Your task to perform on an android device: create a new album in the google photos Image 0: 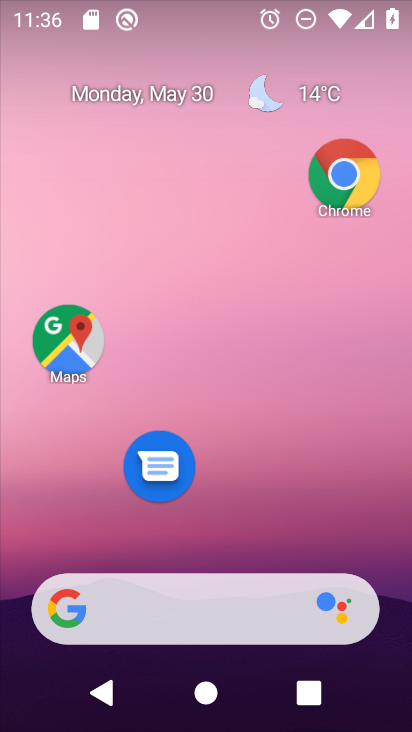
Step 0: drag from (313, 432) to (220, 5)
Your task to perform on an android device: create a new album in the google photos Image 1: 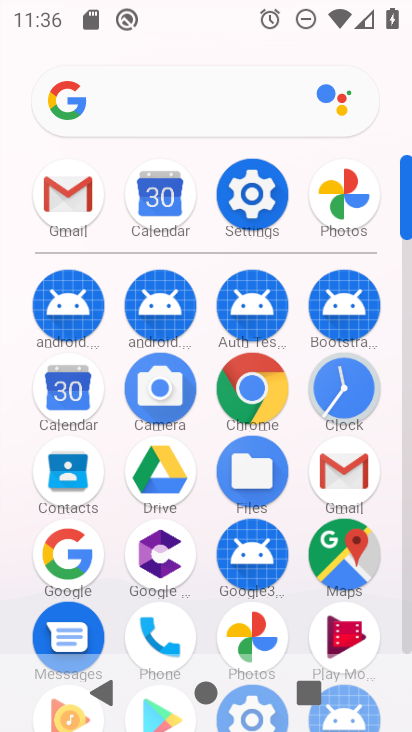
Step 1: click (266, 628)
Your task to perform on an android device: create a new album in the google photos Image 2: 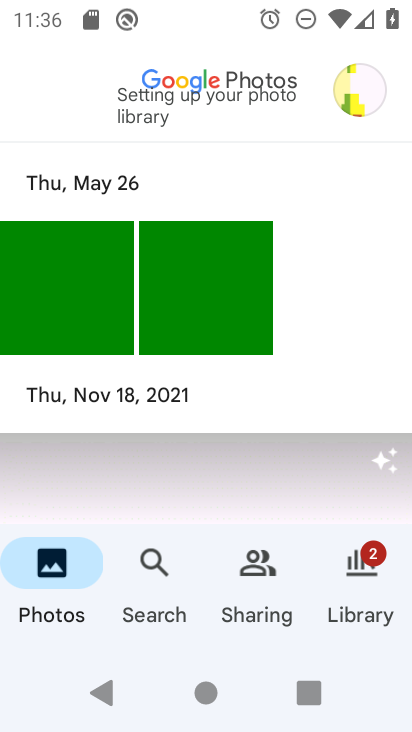
Step 2: drag from (211, 450) to (198, 279)
Your task to perform on an android device: create a new album in the google photos Image 3: 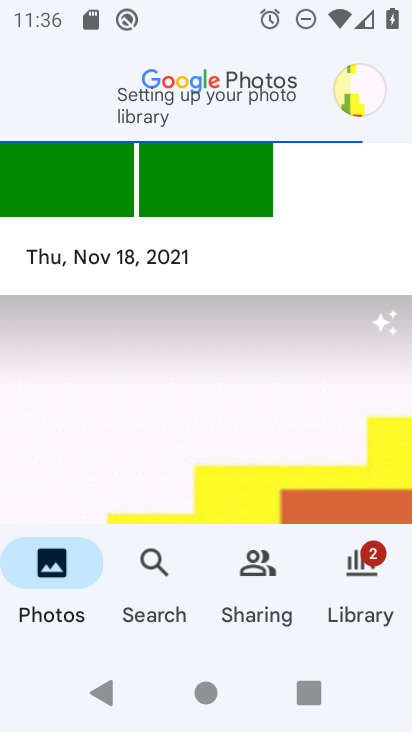
Step 3: click (189, 368)
Your task to perform on an android device: create a new album in the google photos Image 4: 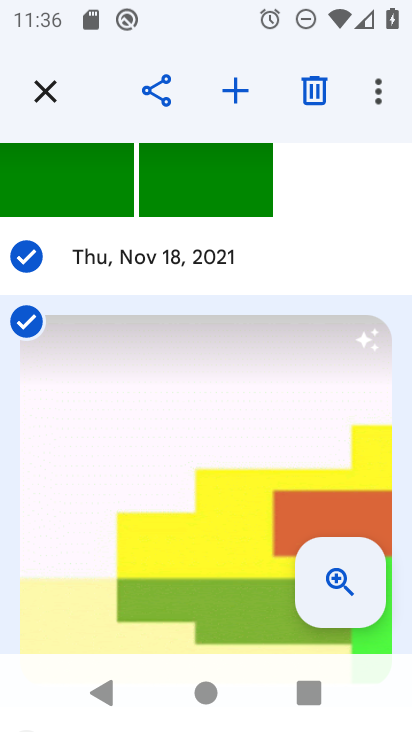
Step 4: drag from (129, 229) to (211, 592)
Your task to perform on an android device: create a new album in the google photos Image 5: 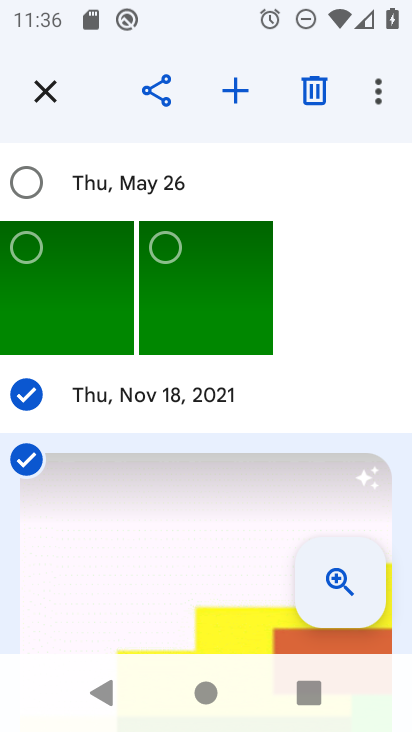
Step 5: click (174, 231)
Your task to perform on an android device: create a new album in the google photos Image 6: 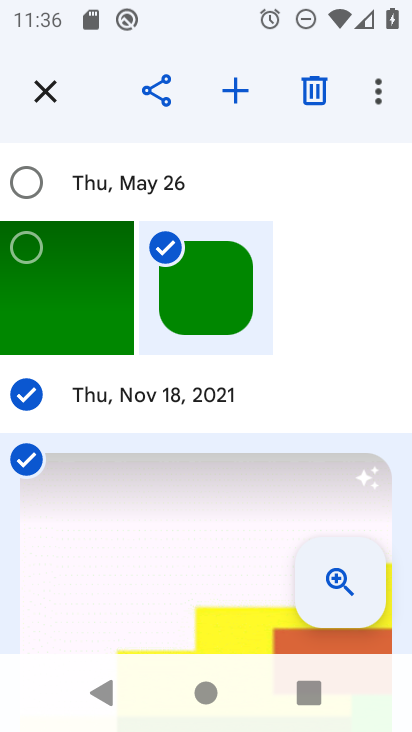
Step 6: click (231, 90)
Your task to perform on an android device: create a new album in the google photos Image 7: 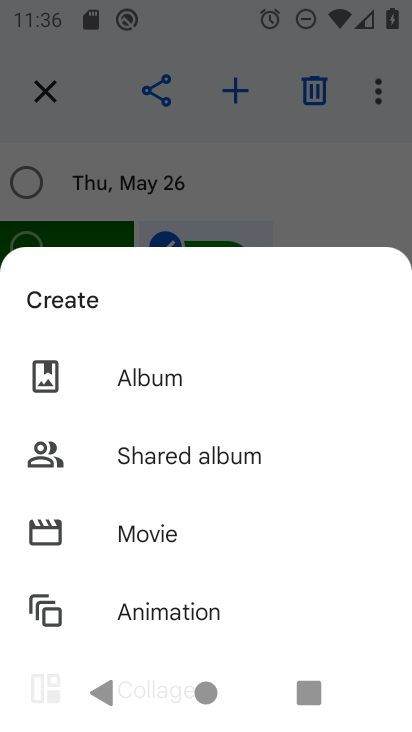
Step 7: click (187, 367)
Your task to perform on an android device: create a new album in the google photos Image 8: 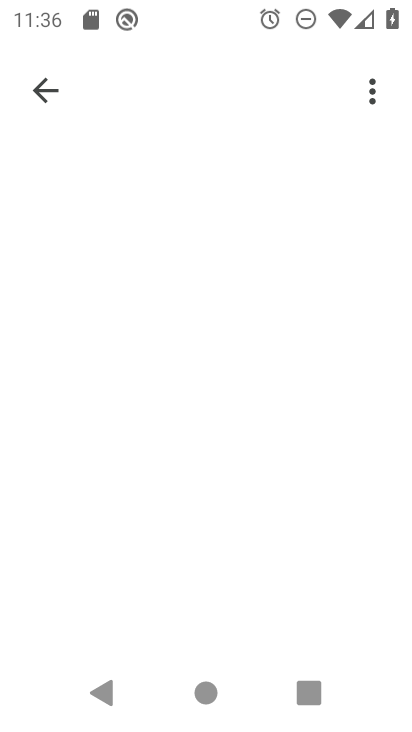
Step 8: click (142, 347)
Your task to perform on an android device: create a new album in the google photos Image 9: 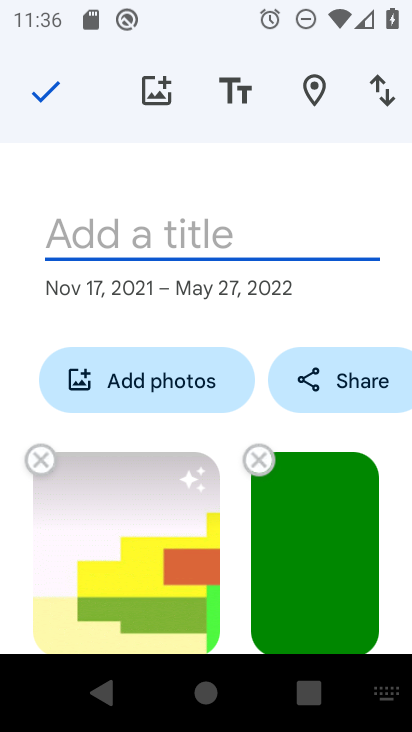
Step 9: type "ejdfohdfhdjfh"
Your task to perform on an android device: create a new album in the google photos Image 10: 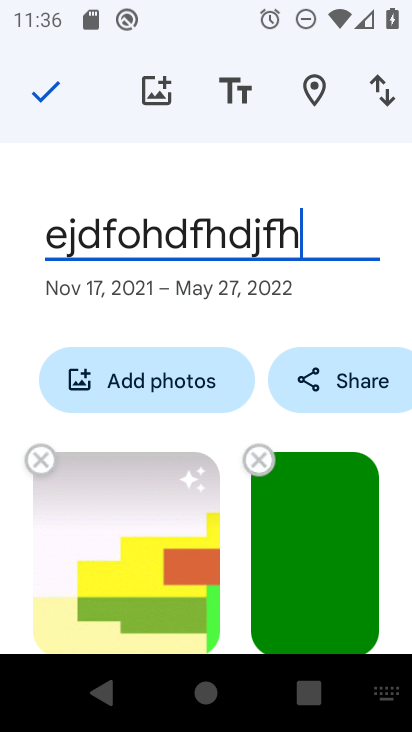
Step 10: click (45, 82)
Your task to perform on an android device: create a new album in the google photos Image 11: 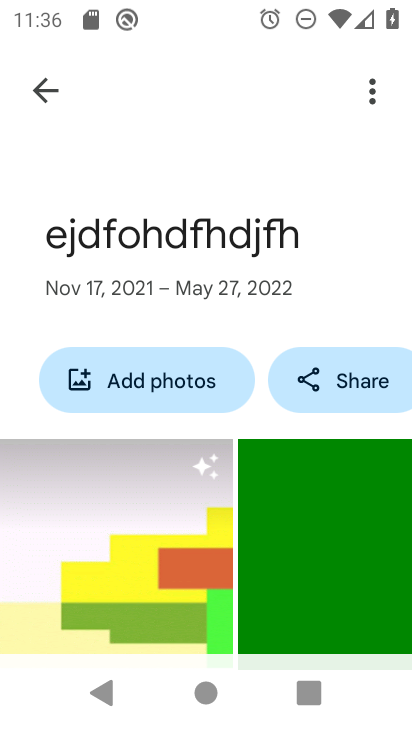
Step 11: task complete